Your task to perform on an android device: check storage Image 0: 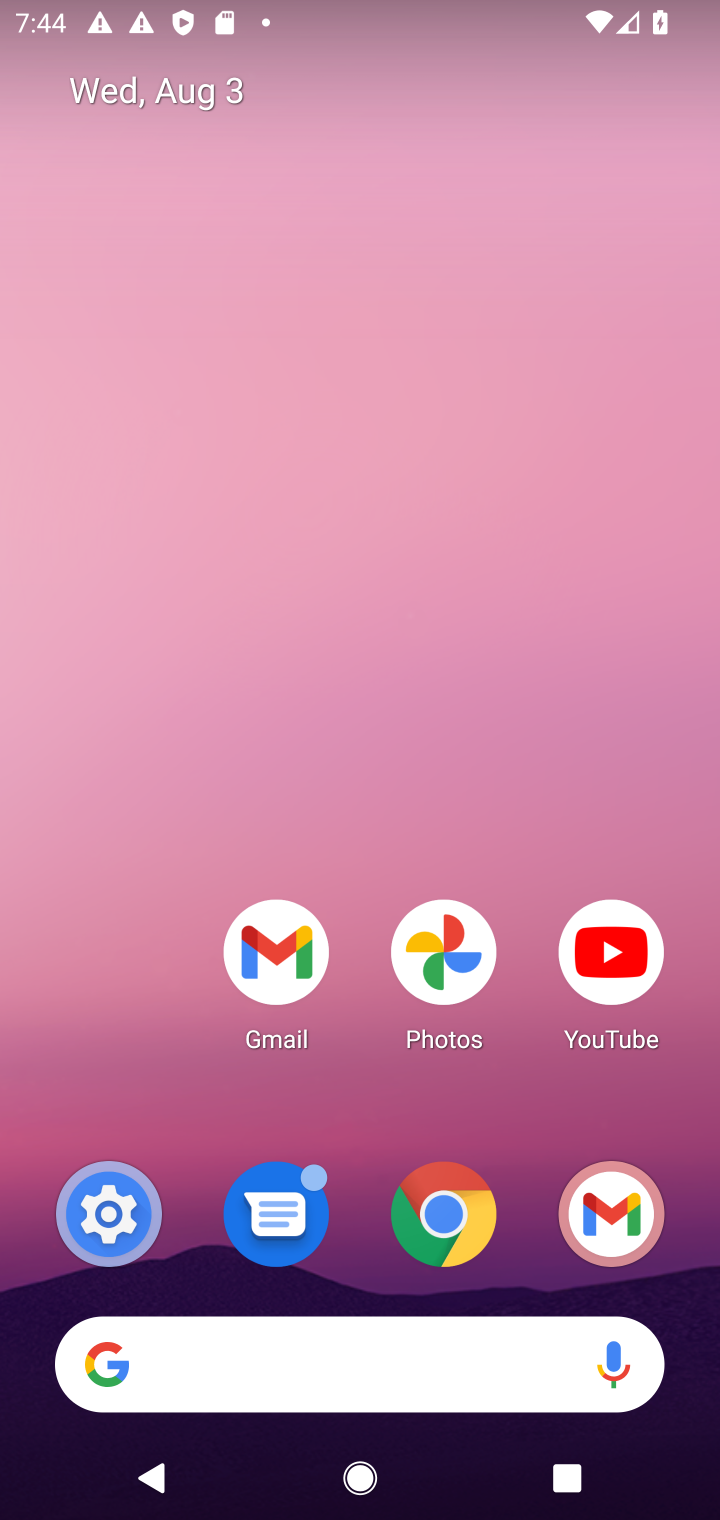
Step 0: drag from (297, 1220) to (297, 449)
Your task to perform on an android device: check storage Image 1: 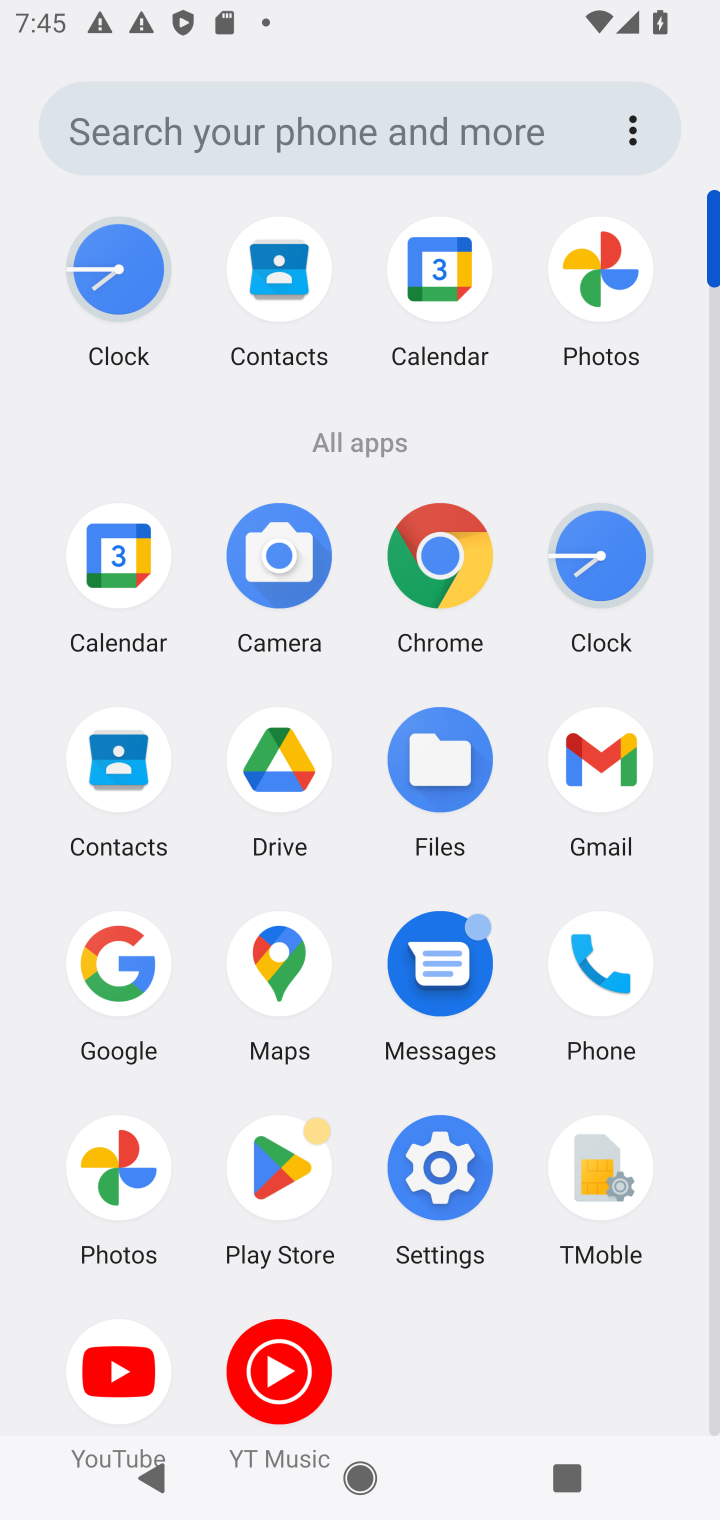
Step 1: click (434, 1179)
Your task to perform on an android device: check storage Image 2: 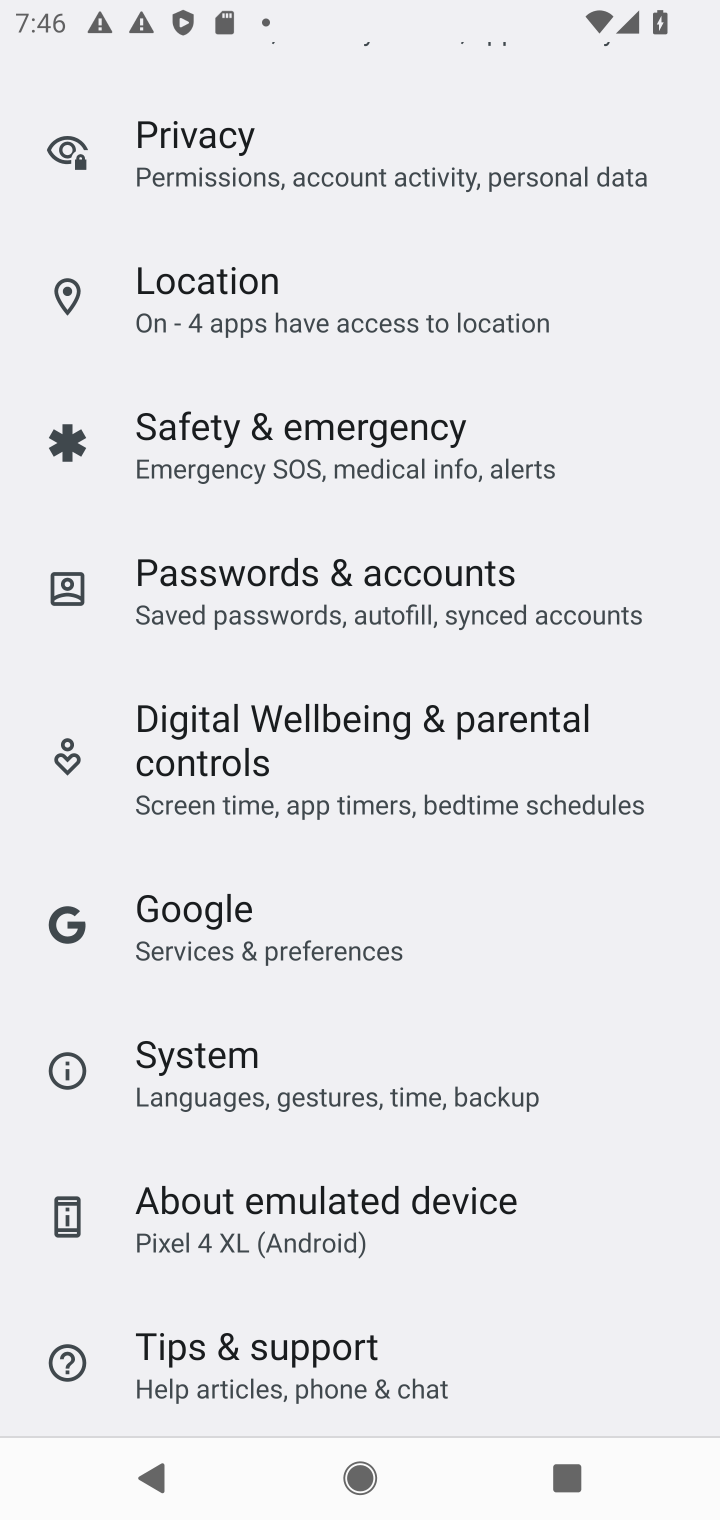
Step 2: drag from (247, 1331) to (249, 478)
Your task to perform on an android device: check storage Image 3: 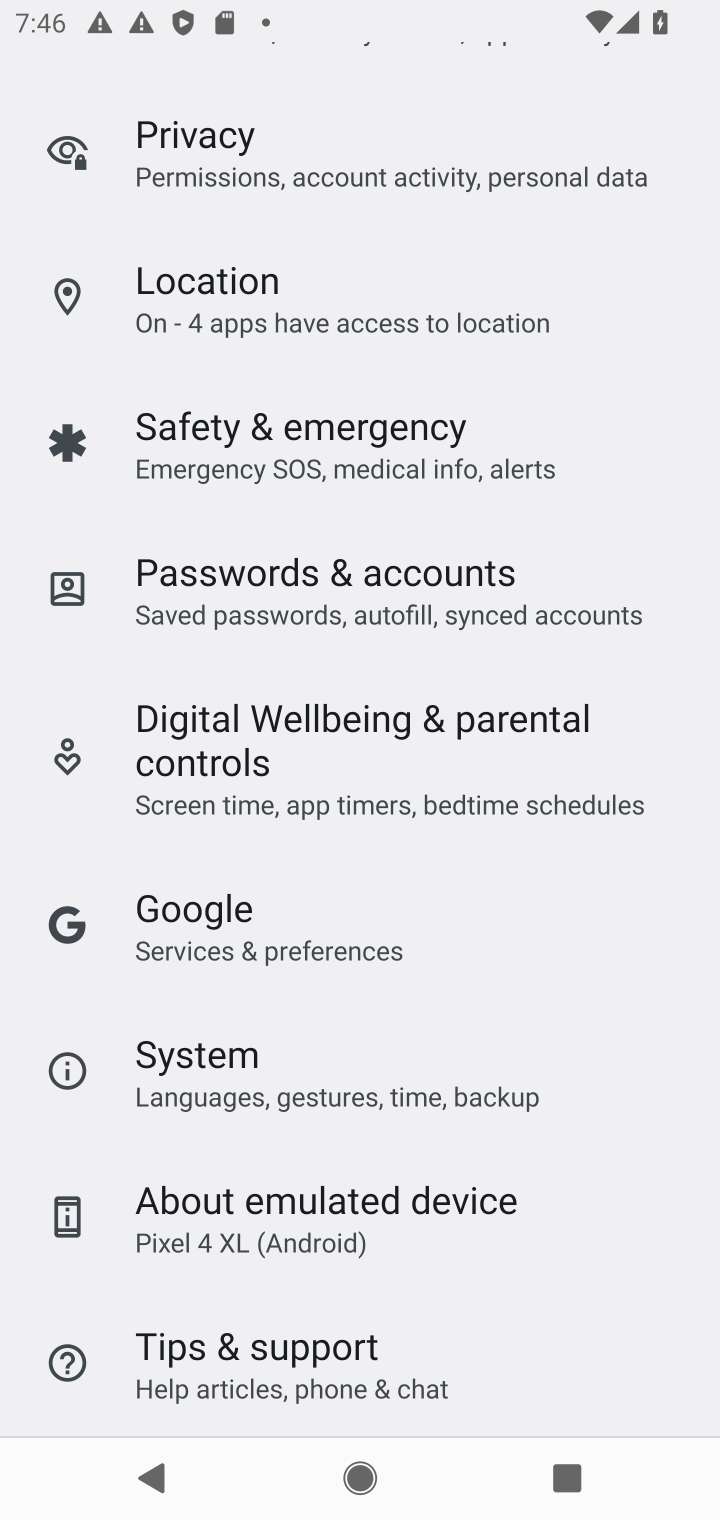
Step 3: drag from (287, 253) to (372, 1095)
Your task to perform on an android device: check storage Image 4: 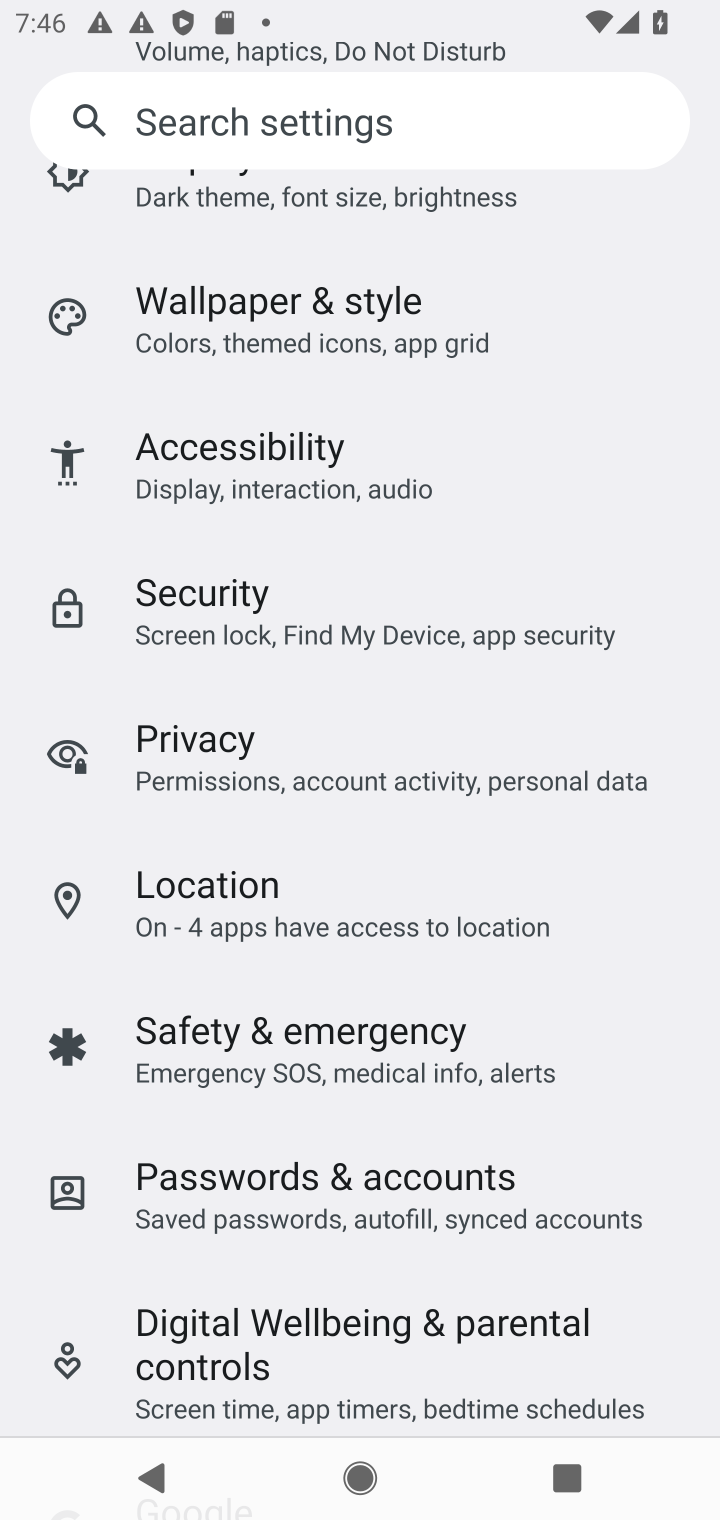
Step 4: drag from (282, 295) to (436, 1199)
Your task to perform on an android device: check storage Image 5: 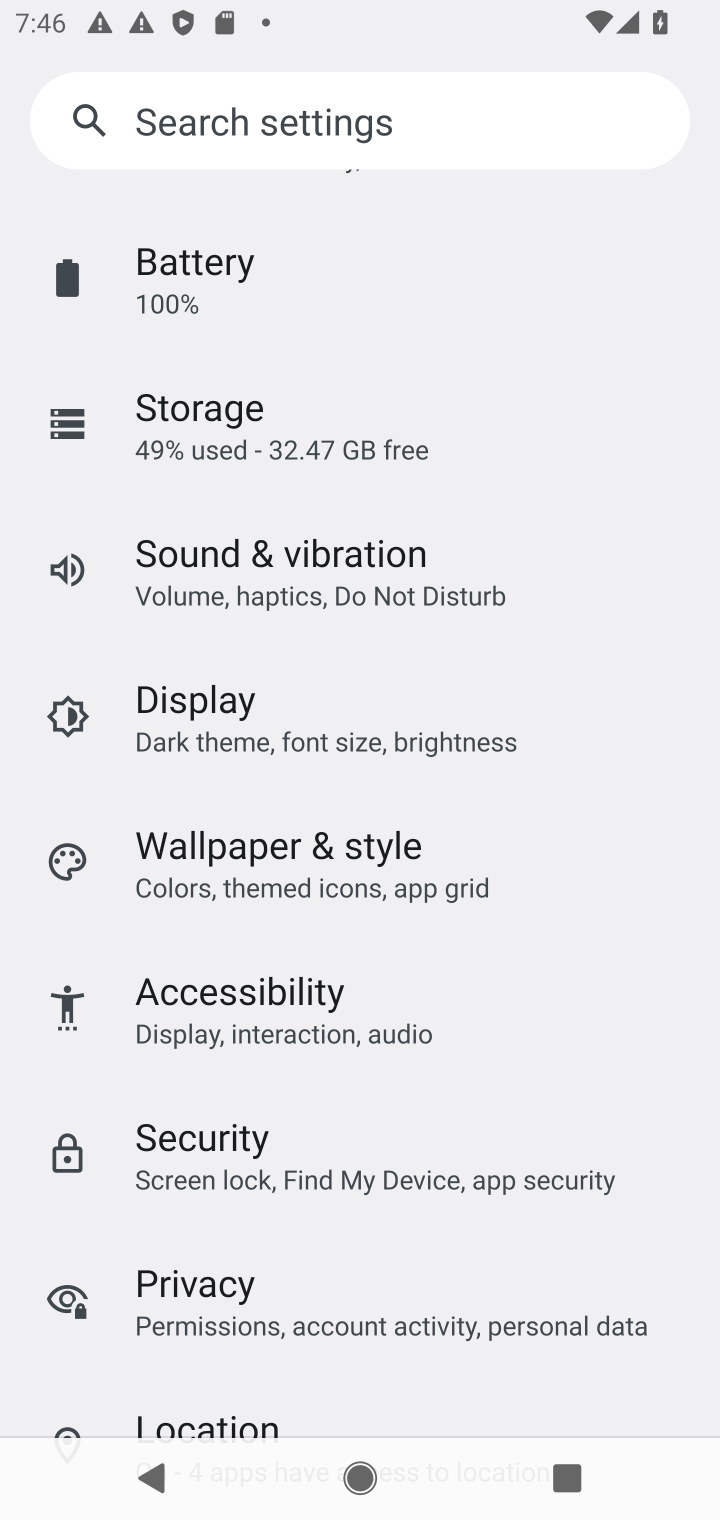
Step 5: click (198, 419)
Your task to perform on an android device: check storage Image 6: 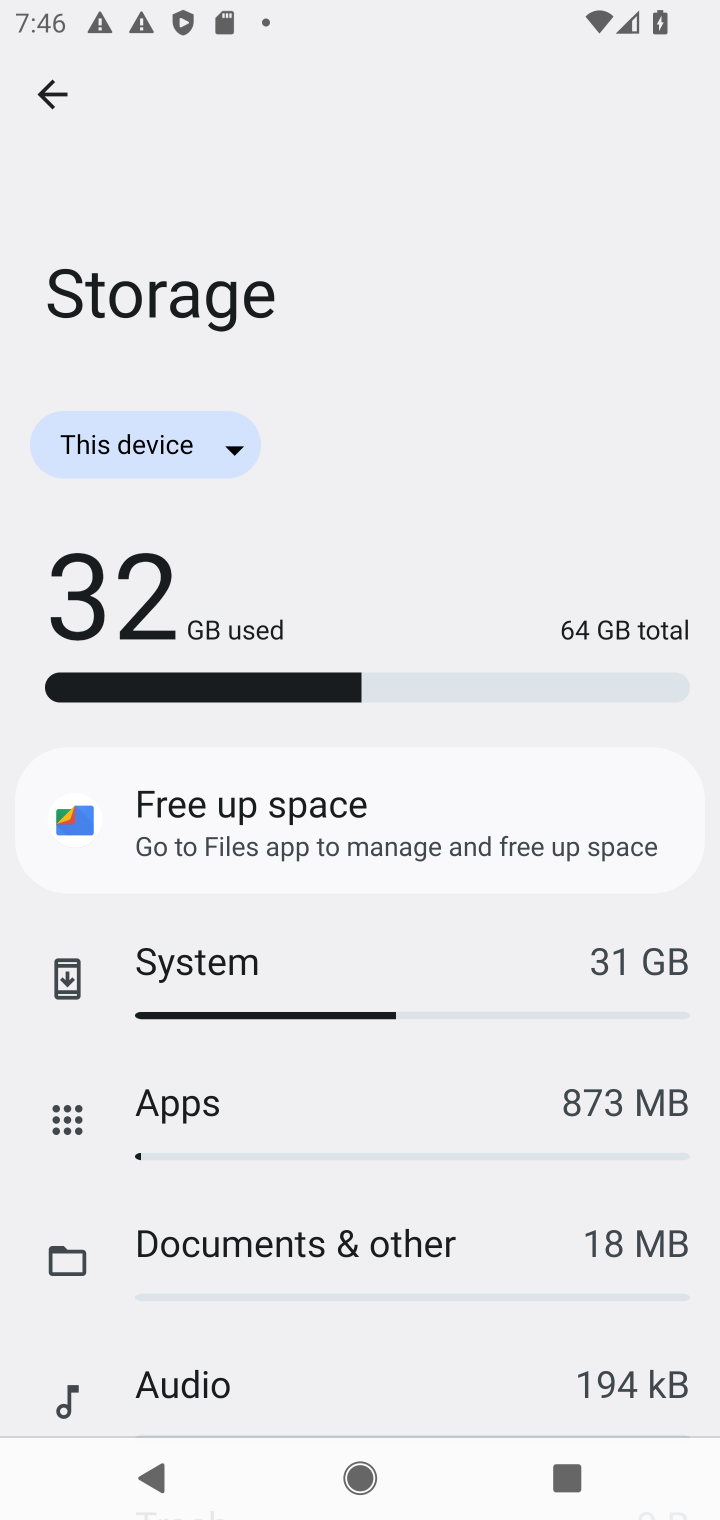
Step 6: task complete